Your task to perform on an android device: toggle wifi Image 0: 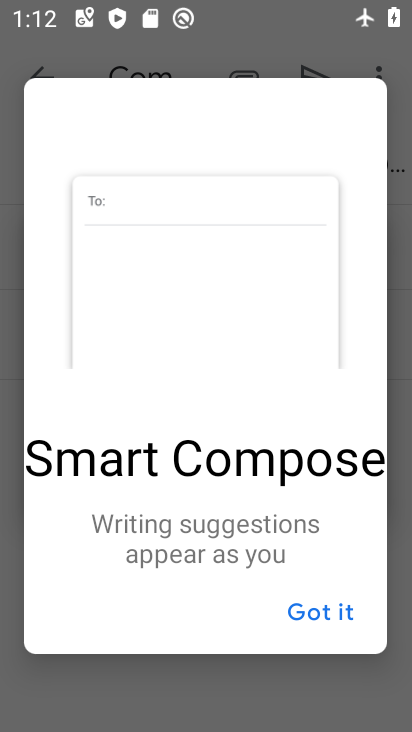
Step 0: press home button
Your task to perform on an android device: toggle wifi Image 1: 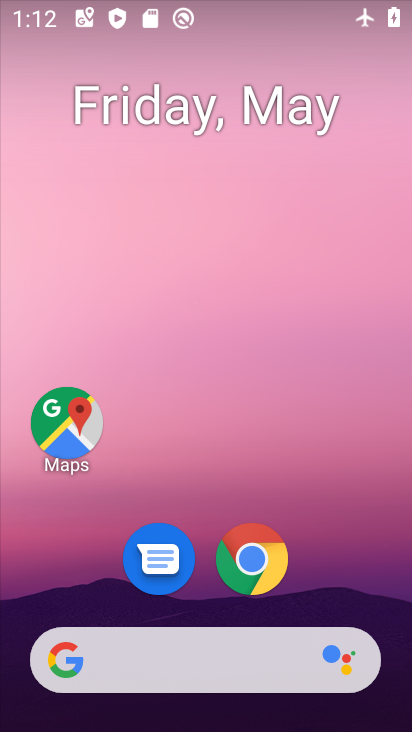
Step 1: drag from (318, 519) to (239, 169)
Your task to perform on an android device: toggle wifi Image 2: 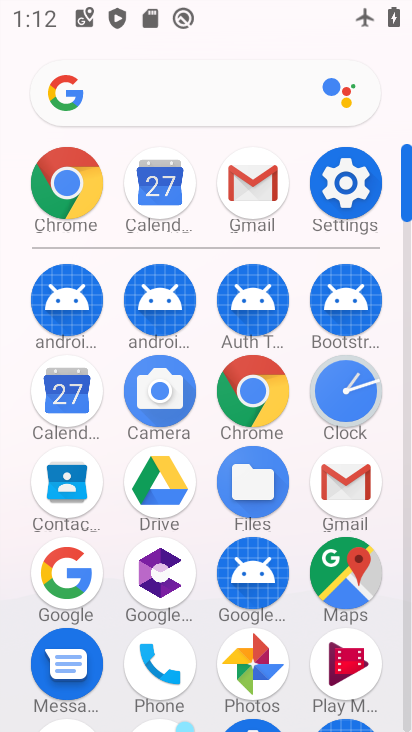
Step 2: click (359, 189)
Your task to perform on an android device: toggle wifi Image 3: 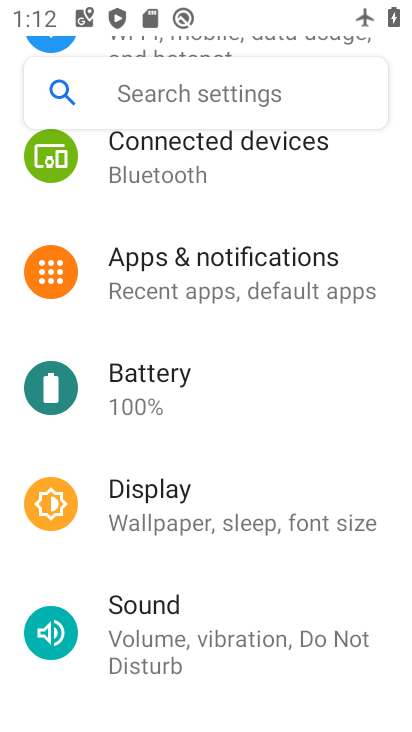
Step 3: drag from (228, 180) to (97, 454)
Your task to perform on an android device: toggle wifi Image 4: 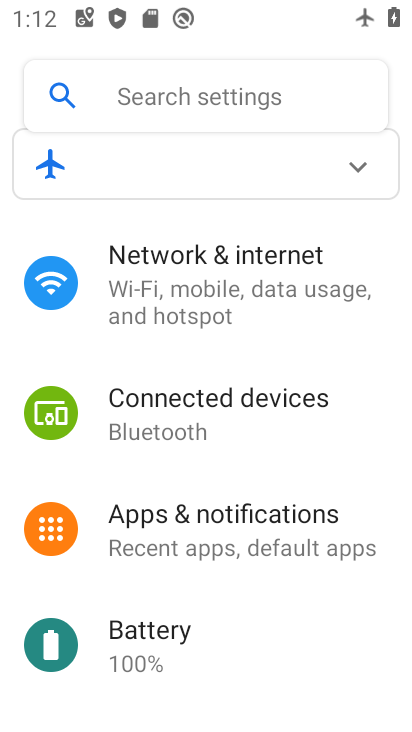
Step 4: click (135, 288)
Your task to perform on an android device: toggle wifi Image 5: 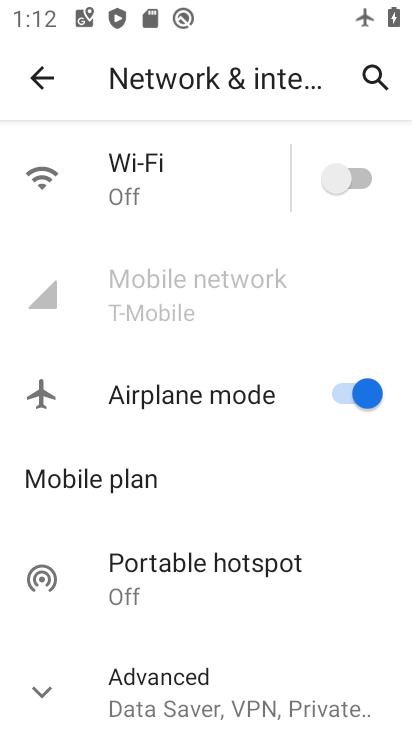
Step 5: click (209, 179)
Your task to perform on an android device: toggle wifi Image 6: 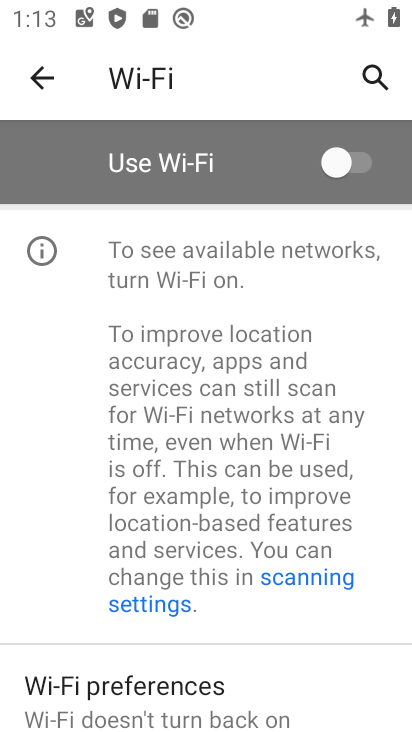
Step 6: click (364, 166)
Your task to perform on an android device: toggle wifi Image 7: 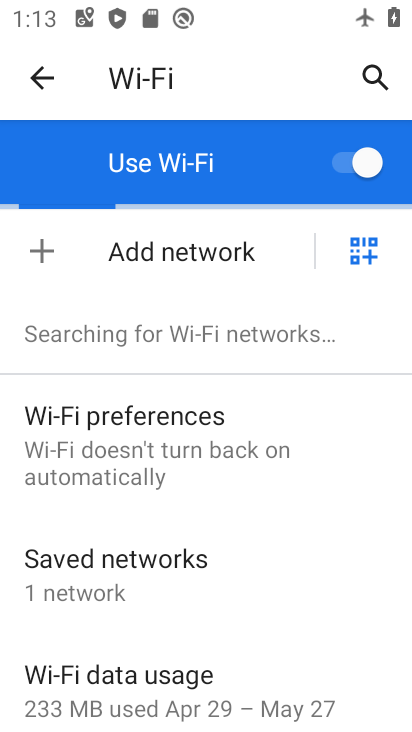
Step 7: task complete